Your task to perform on an android device: star an email in the gmail app Image 0: 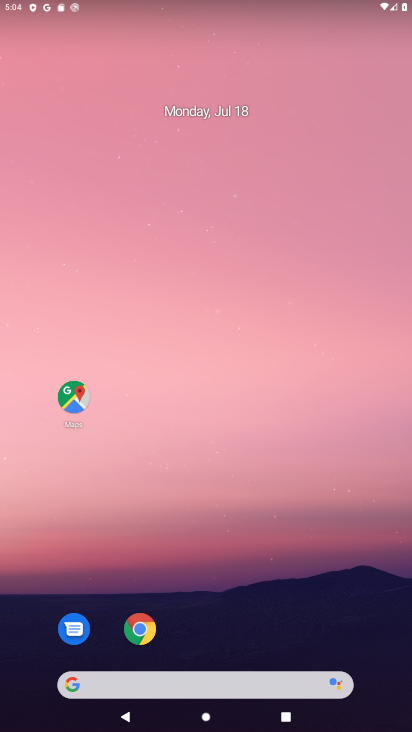
Step 0: drag from (315, 604) to (147, 11)
Your task to perform on an android device: star an email in the gmail app Image 1: 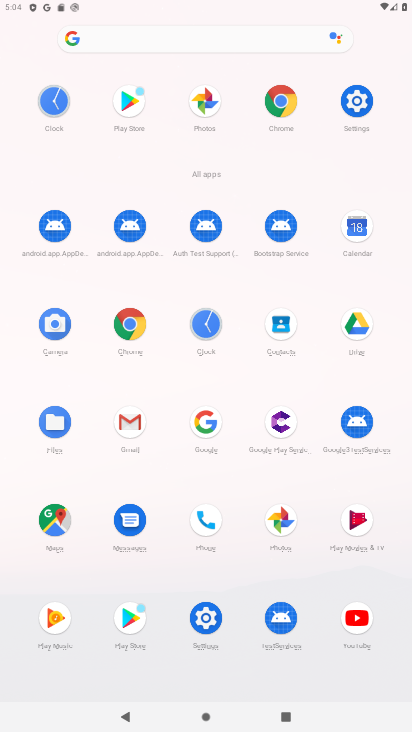
Step 1: click (137, 424)
Your task to perform on an android device: star an email in the gmail app Image 2: 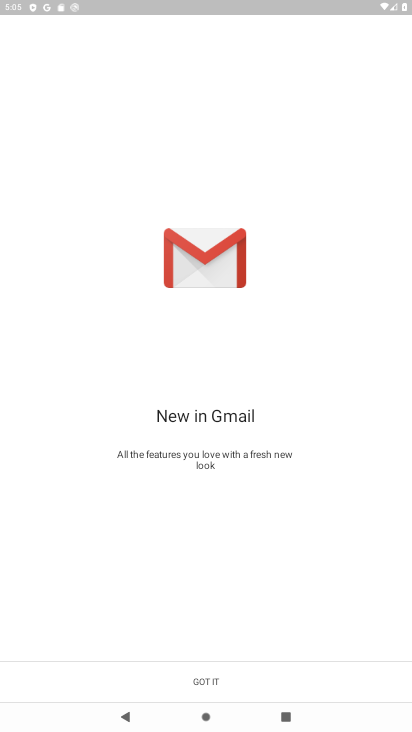
Step 2: click (221, 684)
Your task to perform on an android device: star an email in the gmail app Image 3: 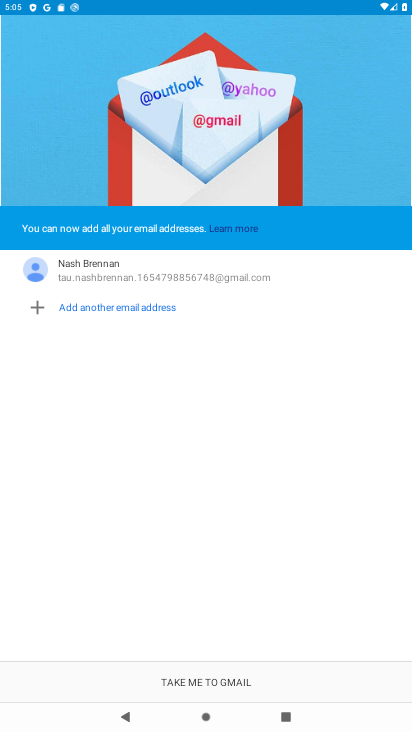
Step 3: click (265, 679)
Your task to perform on an android device: star an email in the gmail app Image 4: 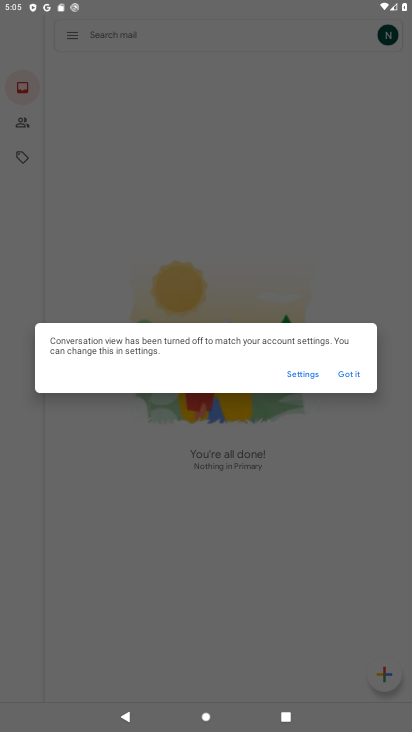
Step 4: click (345, 373)
Your task to perform on an android device: star an email in the gmail app Image 5: 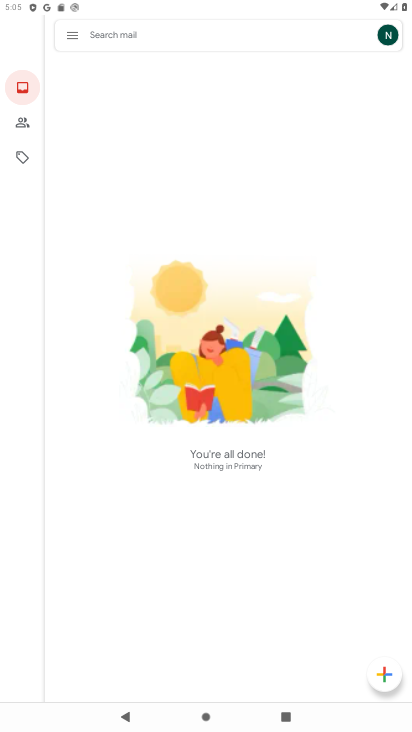
Step 5: click (73, 28)
Your task to perform on an android device: star an email in the gmail app Image 6: 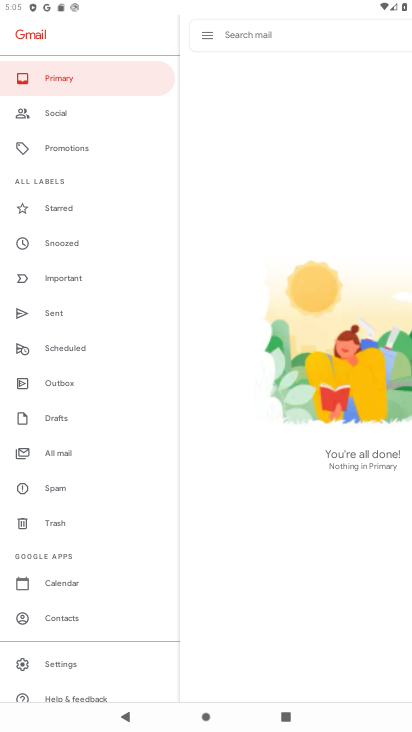
Step 6: click (65, 454)
Your task to perform on an android device: star an email in the gmail app Image 7: 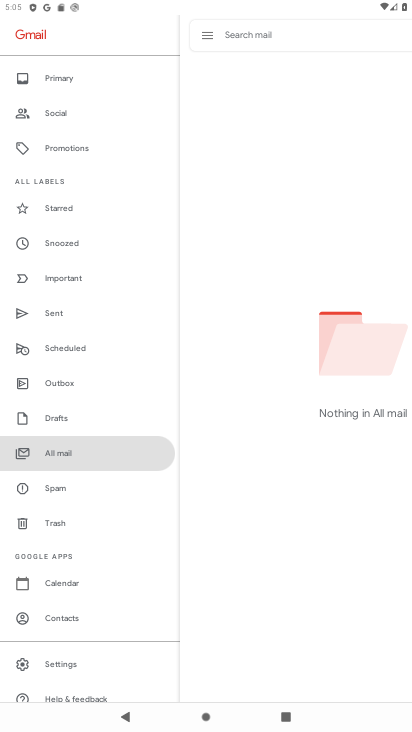
Step 7: task complete